Your task to perform on an android device: check android version Image 0: 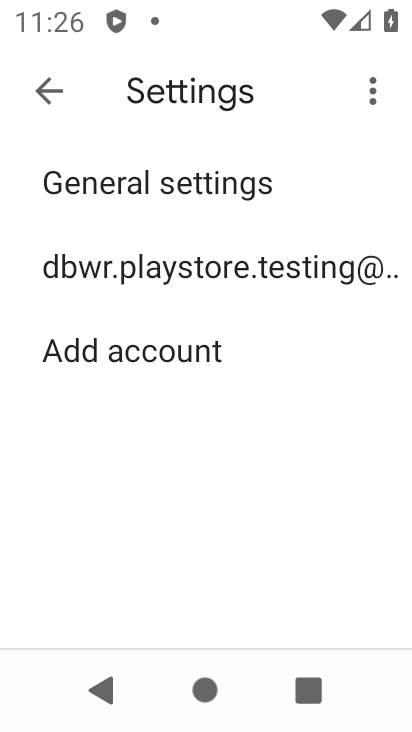
Step 0: press home button
Your task to perform on an android device: check android version Image 1: 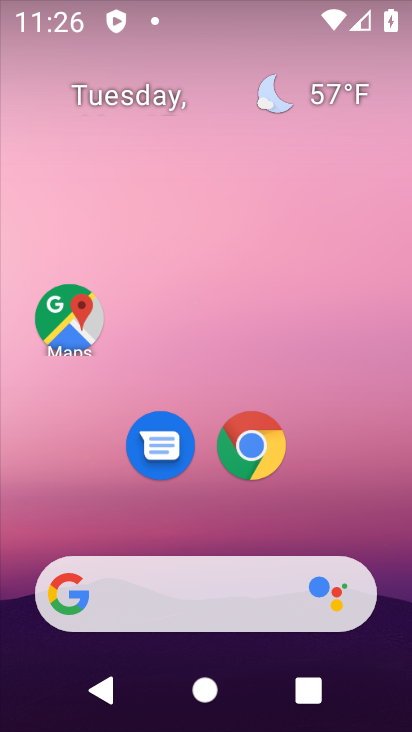
Step 1: drag from (371, 522) to (352, 208)
Your task to perform on an android device: check android version Image 2: 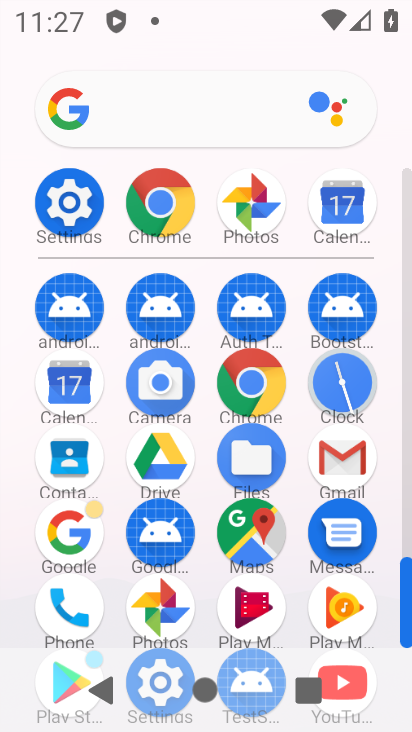
Step 2: click (72, 191)
Your task to perform on an android device: check android version Image 3: 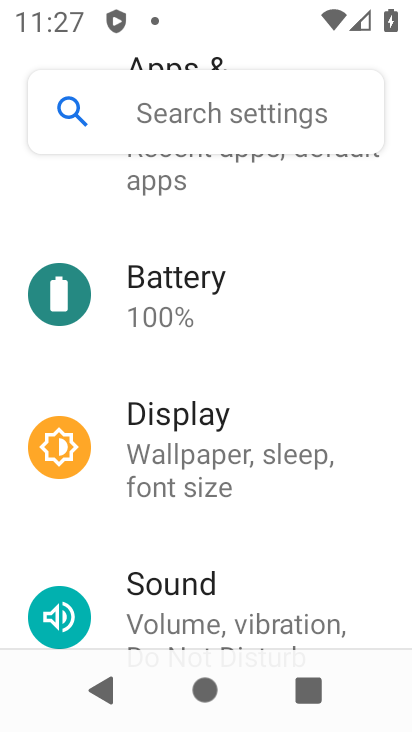
Step 3: drag from (354, 566) to (357, 384)
Your task to perform on an android device: check android version Image 4: 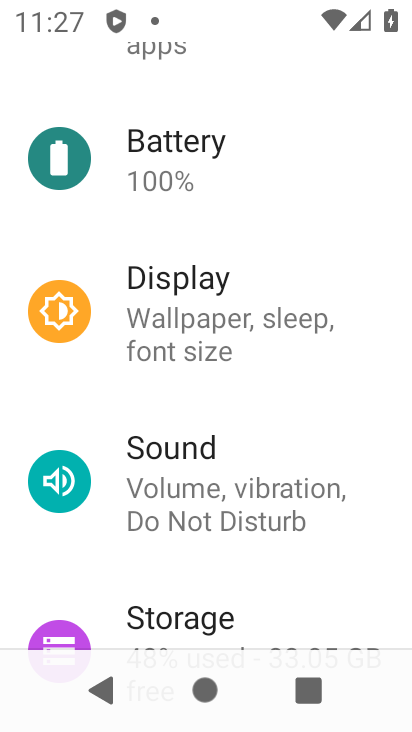
Step 4: drag from (332, 556) to (345, 397)
Your task to perform on an android device: check android version Image 5: 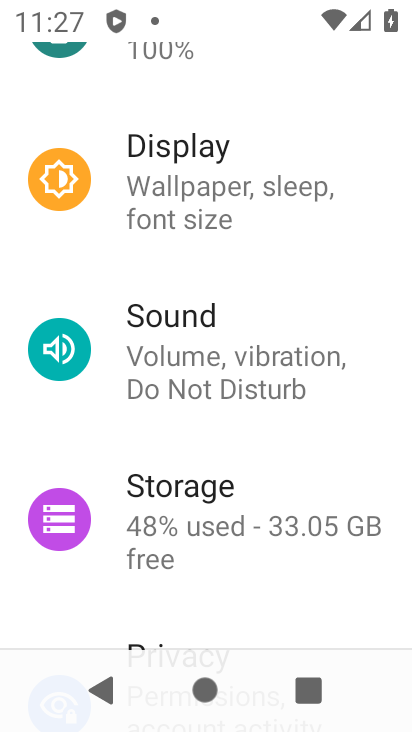
Step 5: drag from (324, 607) to (315, 444)
Your task to perform on an android device: check android version Image 6: 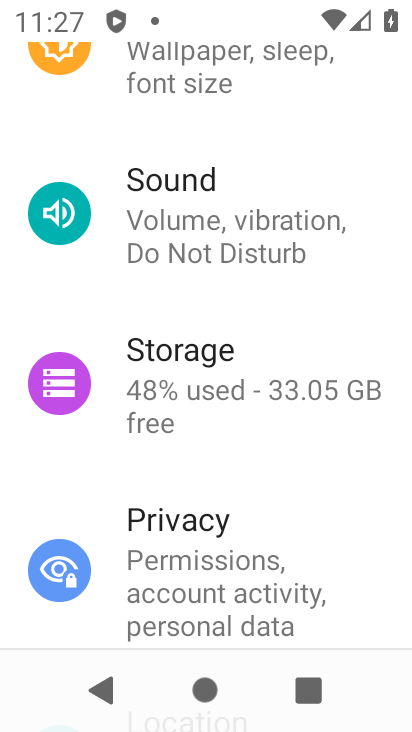
Step 6: drag from (328, 620) to (365, 432)
Your task to perform on an android device: check android version Image 7: 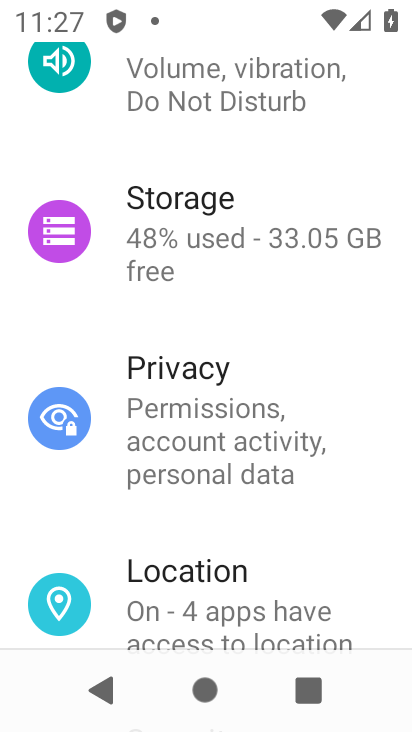
Step 7: drag from (328, 565) to (347, 444)
Your task to perform on an android device: check android version Image 8: 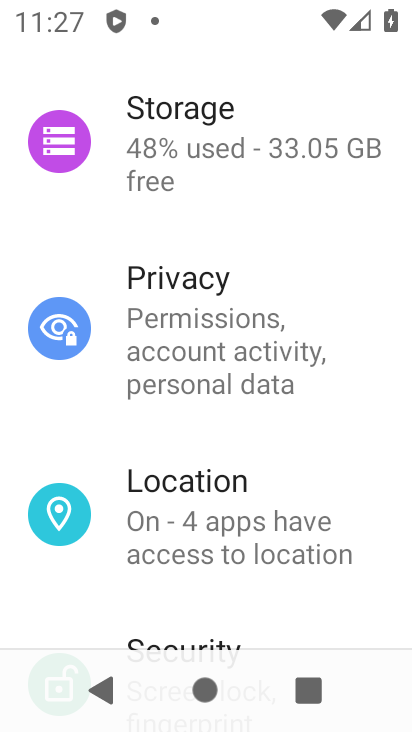
Step 8: drag from (362, 626) to (365, 459)
Your task to perform on an android device: check android version Image 9: 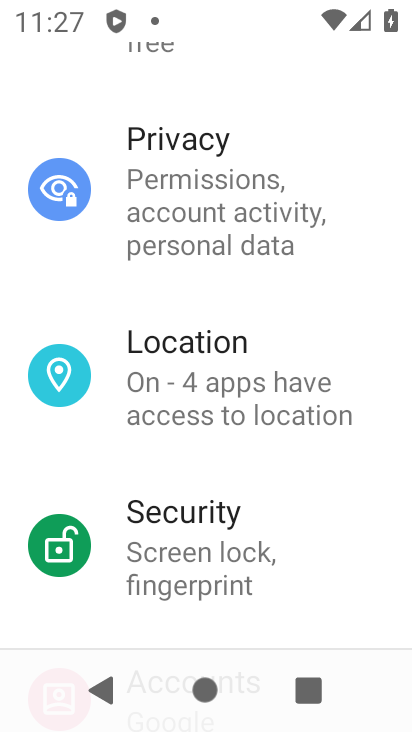
Step 9: drag from (332, 584) to (353, 411)
Your task to perform on an android device: check android version Image 10: 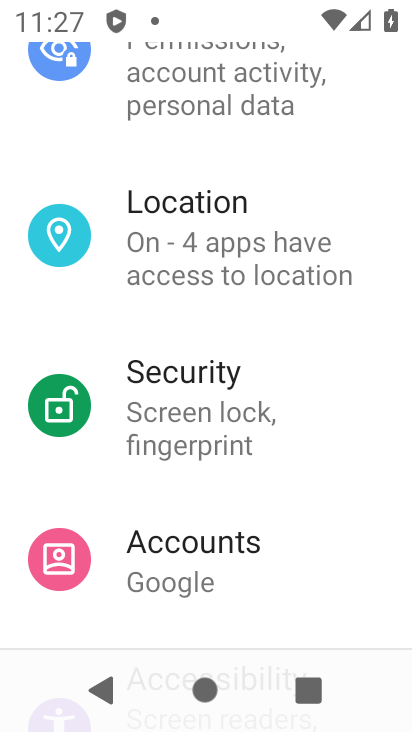
Step 10: drag from (350, 605) to (357, 429)
Your task to perform on an android device: check android version Image 11: 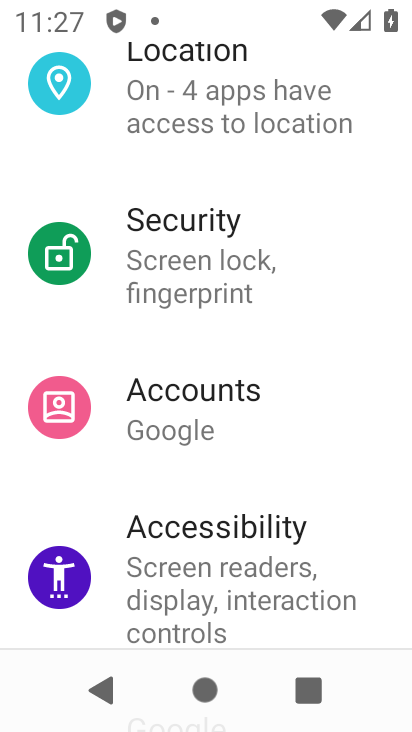
Step 11: drag from (354, 564) to (344, 423)
Your task to perform on an android device: check android version Image 12: 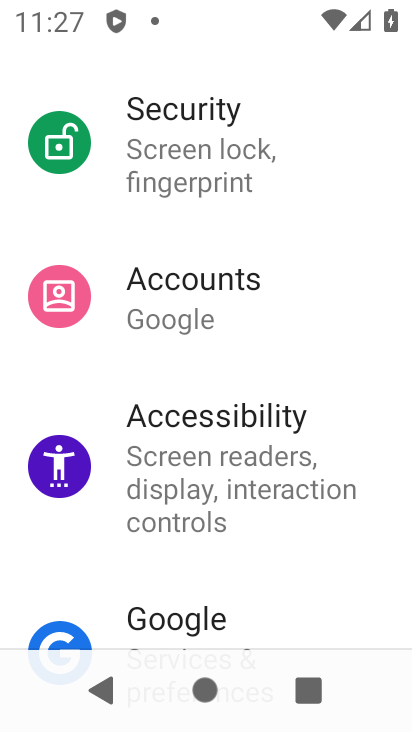
Step 12: drag from (328, 590) to (339, 391)
Your task to perform on an android device: check android version Image 13: 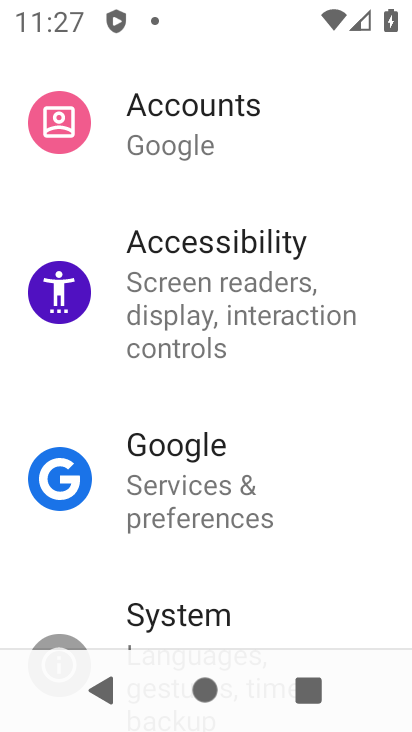
Step 13: drag from (323, 527) to (318, 419)
Your task to perform on an android device: check android version Image 14: 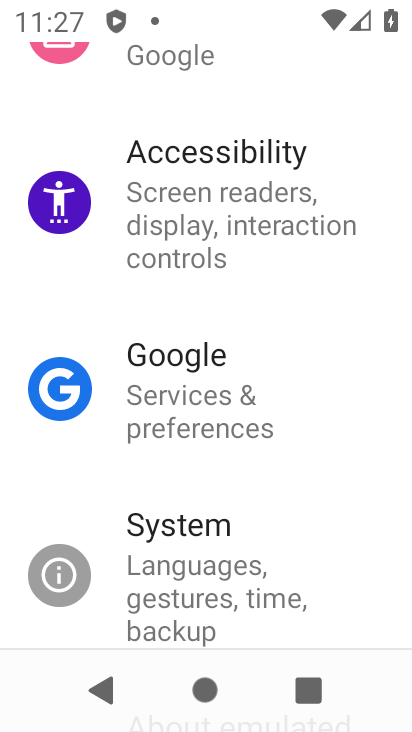
Step 14: drag from (310, 560) to (311, 432)
Your task to perform on an android device: check android version Image 15: 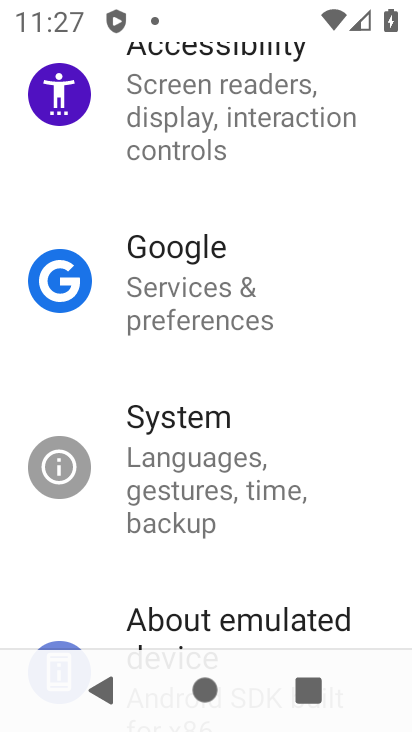
Step 15: drag from (300, 567) to (321, 408)
Your task to perform on an android device: check android version Image 16: 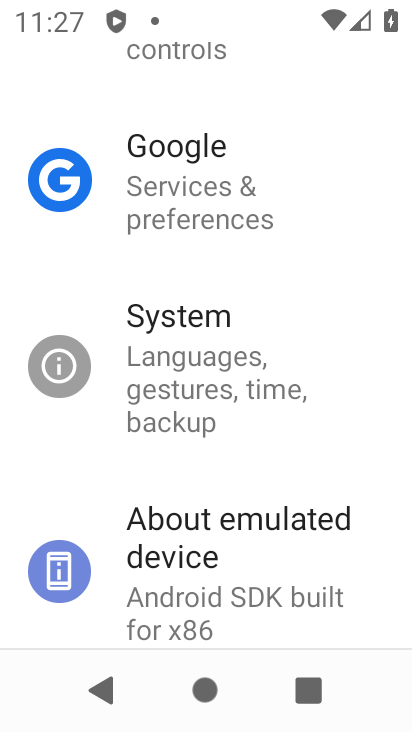
Step 16: drag from (332, 603) to (343, 394)
Your task to perform on an android device: check android version Image 17: 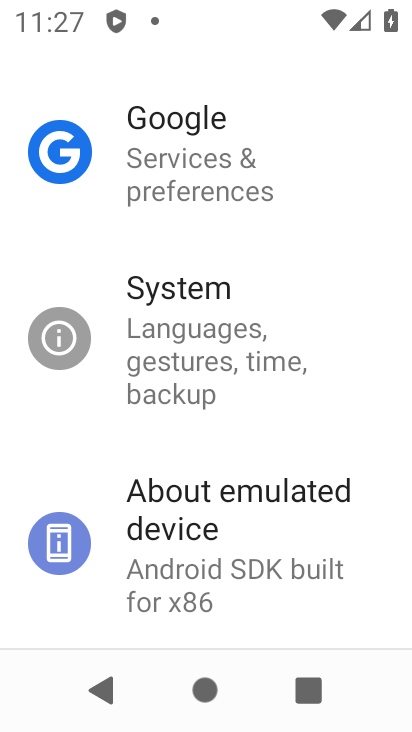
Step 17: click (276, 355)
Your task to perform on an android device: check android version Image 18: 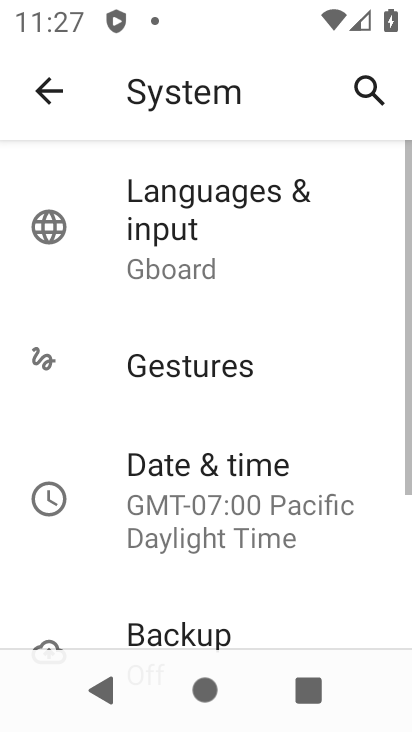
Step 18: drag from (287, 579) to (285, 411)
Your task to perform on an android device: check android version Image 19: 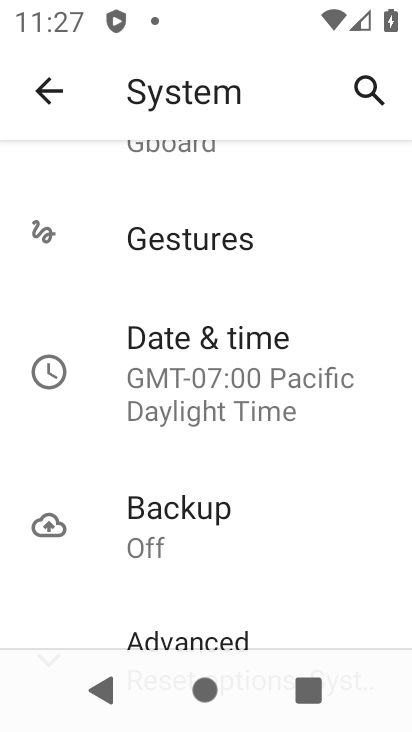
Step 19: drag from (276, 566) to (276, 422)
Your task to perform on an android device: check android version Image 20: 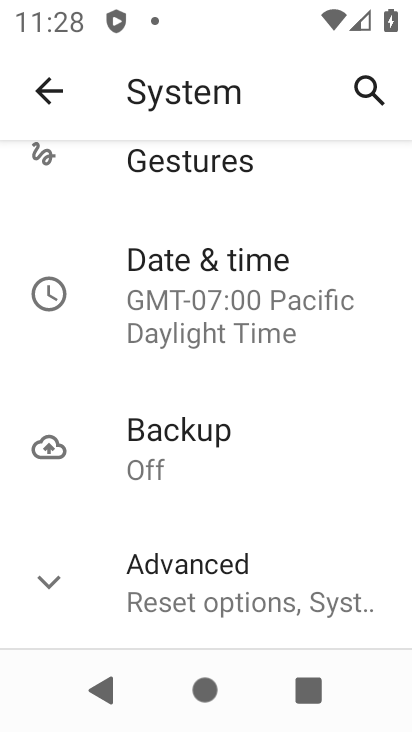
Step 20: click (230, 575)
Your task to perform on an android device: check android version Image 21: 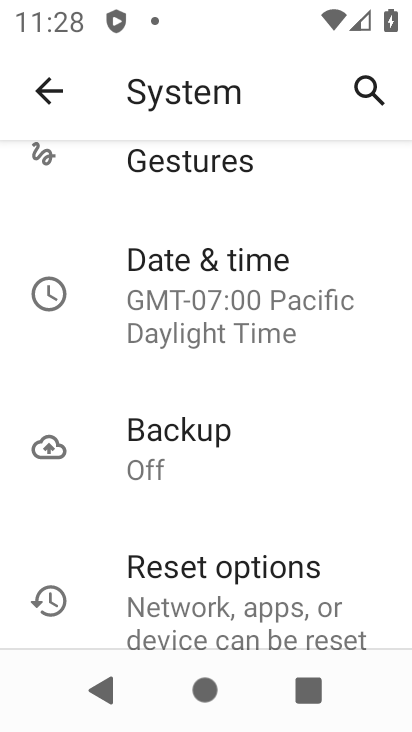
Step 21: drag from (341, 565) to (345, 360)
Your task to perform on an android device: check android version Image 22: 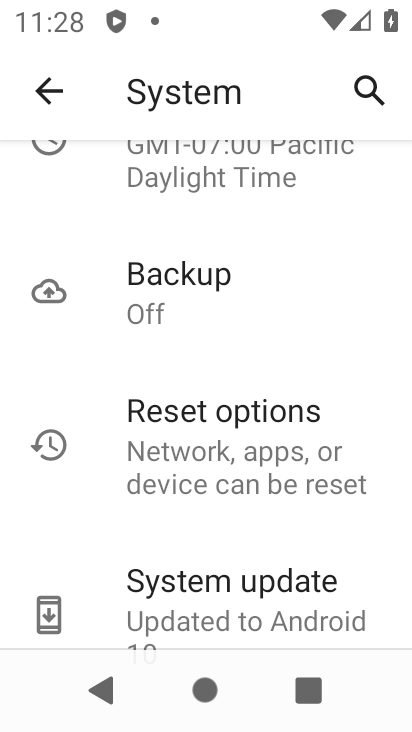
Step 22: drag from (351, 542) to (351, 421)
Your task to perform on an android device: check android version Image 23: 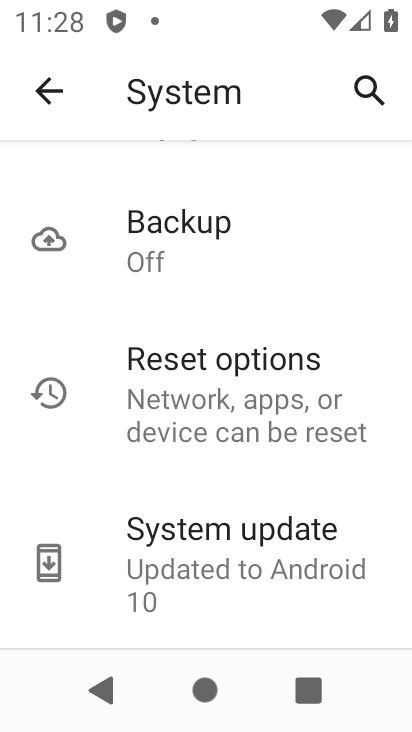
Step 23: click (305, 542)
Your task to perform on an android device: check android version Image 24: 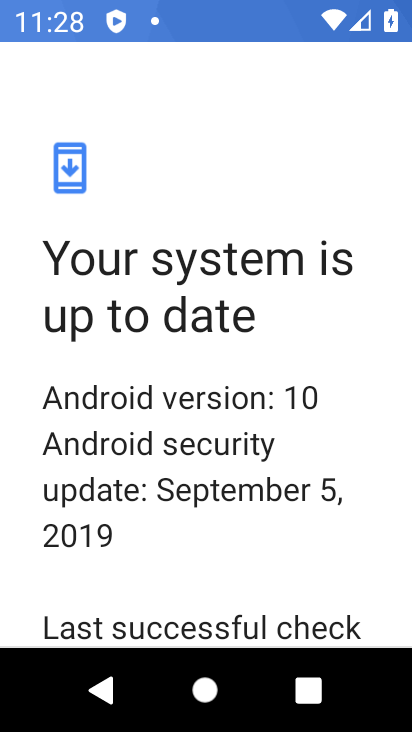
Step 24: task complete